Your task to perform on an android device: Open the stopwatch Image 0: 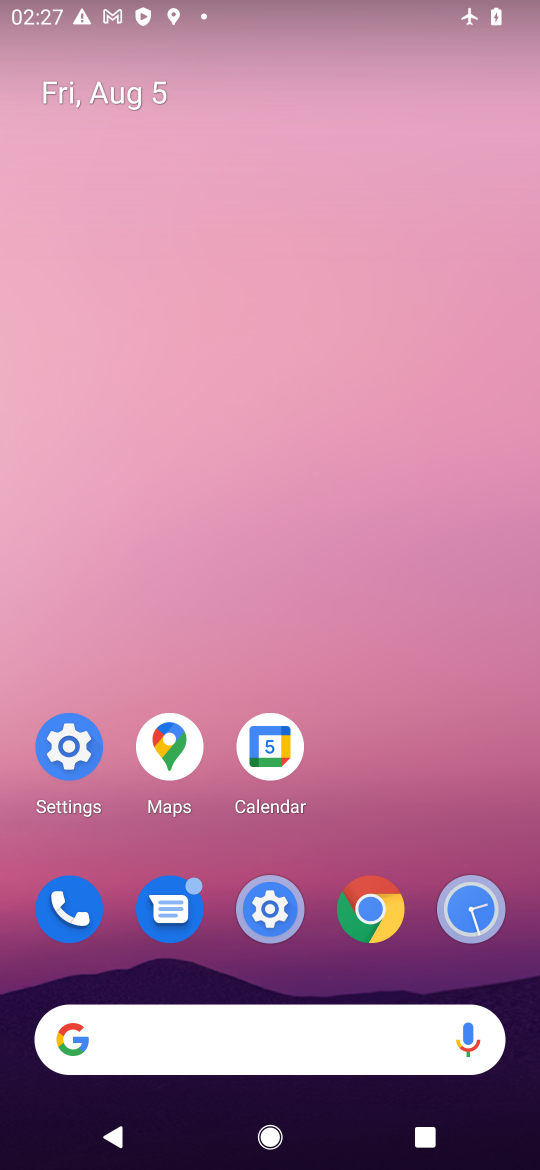
Step 0: click (475, 901)
Your task to perform on an android device: Open the stopwatch Image 1: 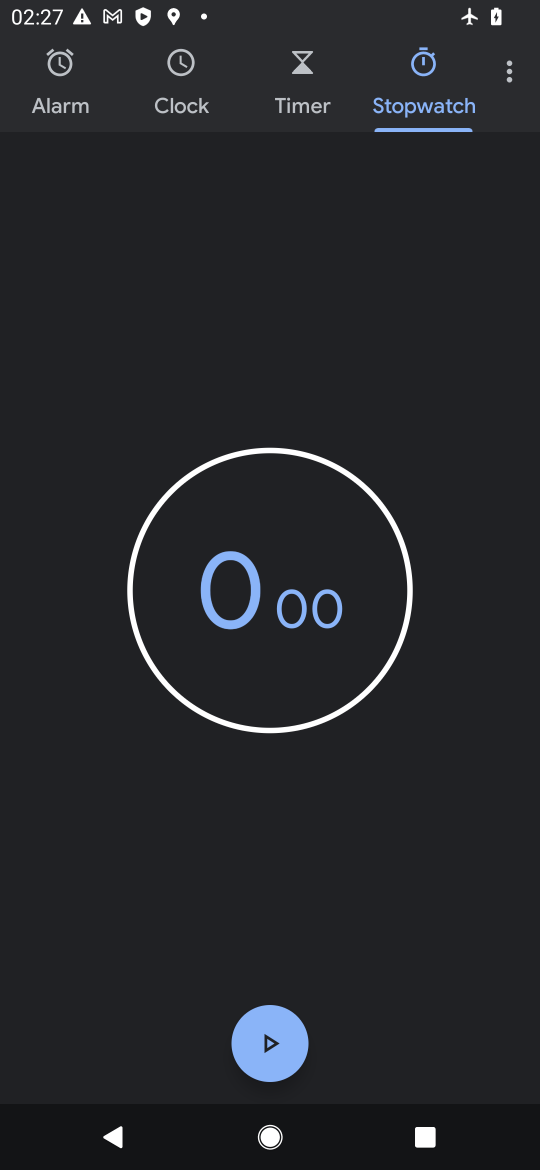
Step 1: task complete